Your task to perform on an android device: Open Google Image 0: 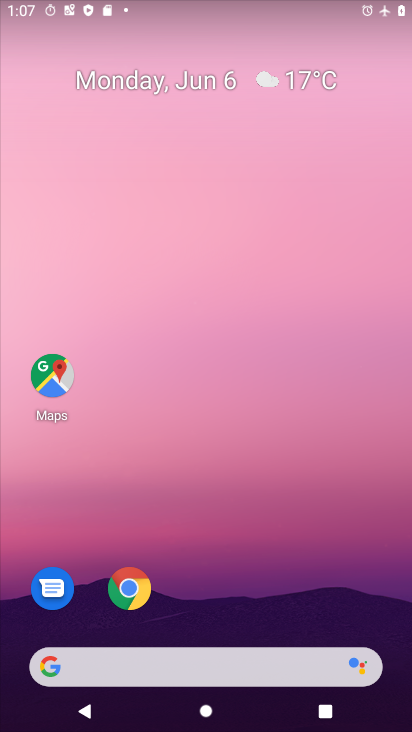
Step 0: drag from (249, 540) to (307, 99)
Your task to perform on an android device: Open Google Image 1: 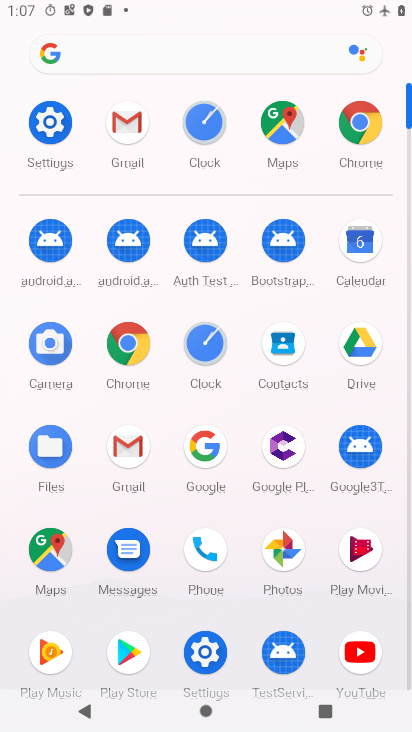
Step 1: click (213, 445)
Your task to perform on an android device: Open Google Image 2: 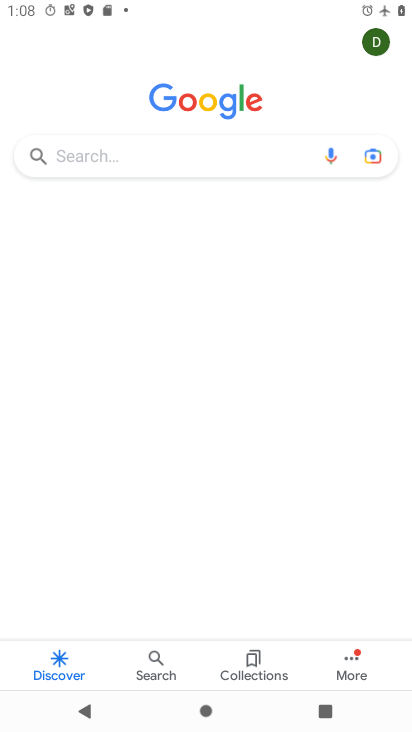
Step 2: task complete